Your task to perform on an android device: Look up the best rated coffee maker on Lowe's. Image 0: 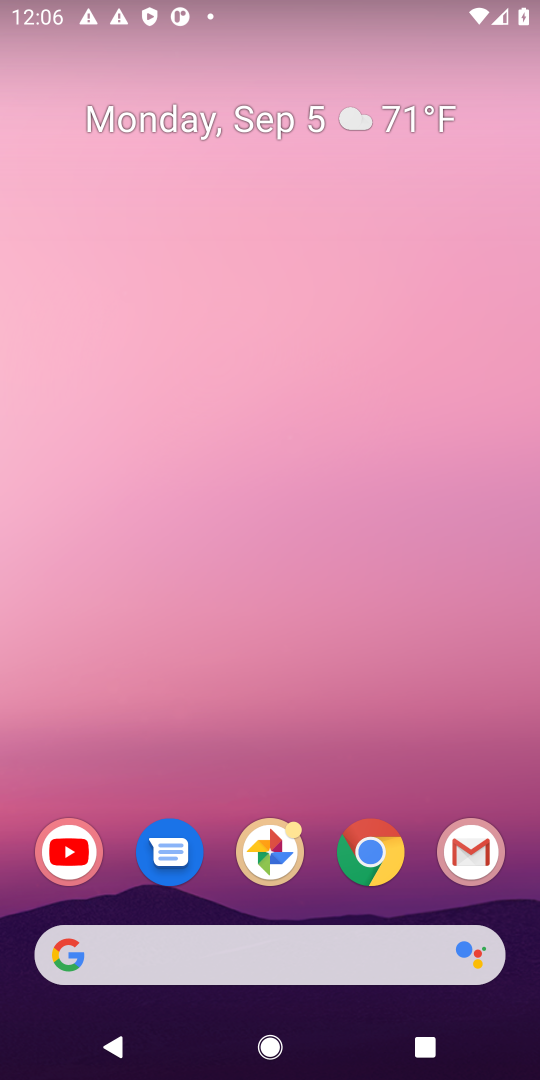
Step 0: click (369, 857)
Your task to perform on an android device: Look up the best rated coffee maker on Lowe's. Image 1: 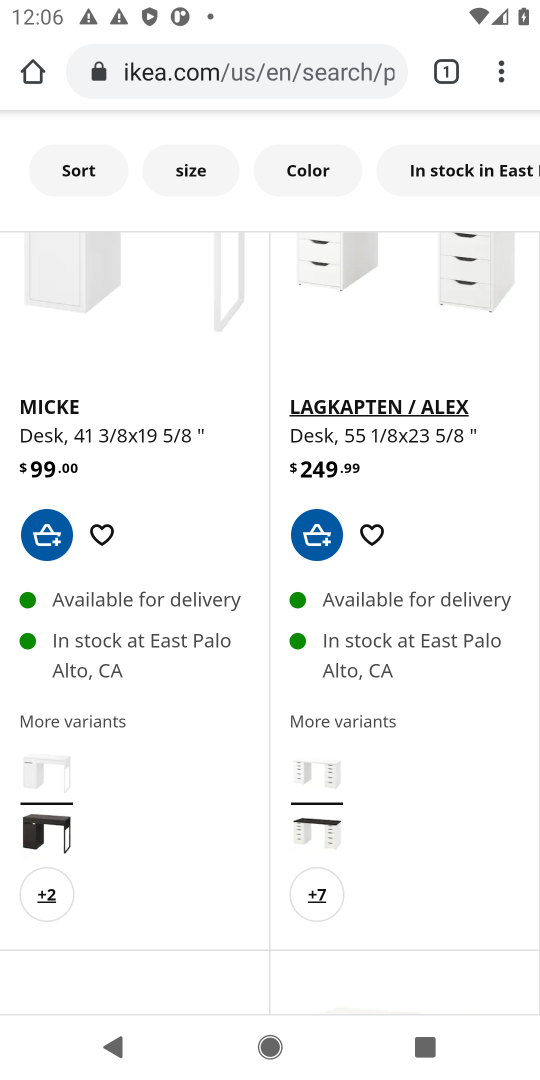
Step 1: click (322, 49)
Your task to perform on an android device: Look up the best rated coffee maker on Lowe's. Image 2: 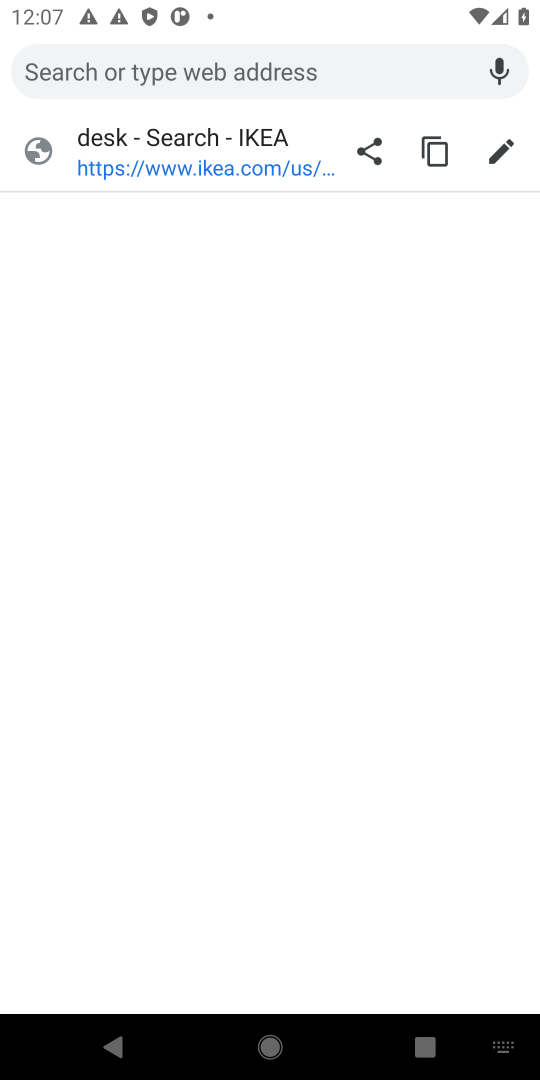
Step 2: type "Lowe's"
Your task to perform on an android device: Look up the best rated coffee maker on Lowe's. Image 3: 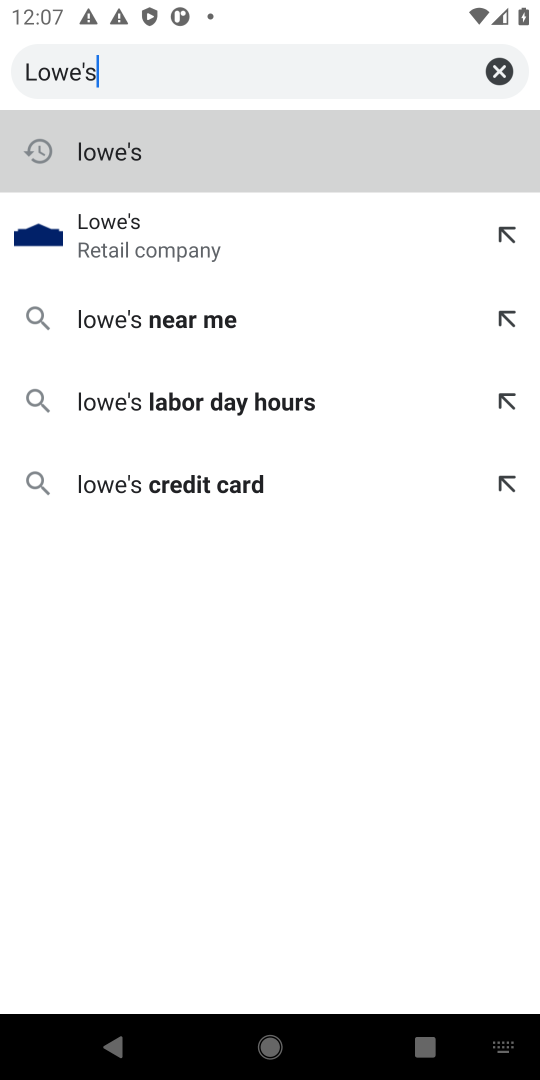
Step 3: click (105, 228)
Your task to perform on an android device: Look up the best rated coffee maker on Lowe's. Image 4: 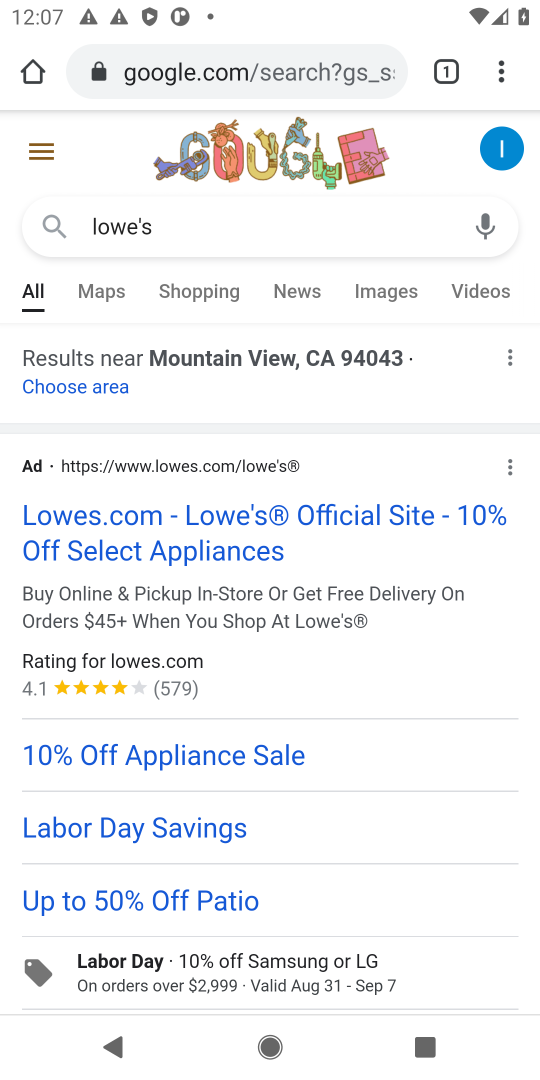
Step 4: click (239, 527)
Your task to perform on an android device: Look up the best rated coffee maker on Lowe's. Image 5: 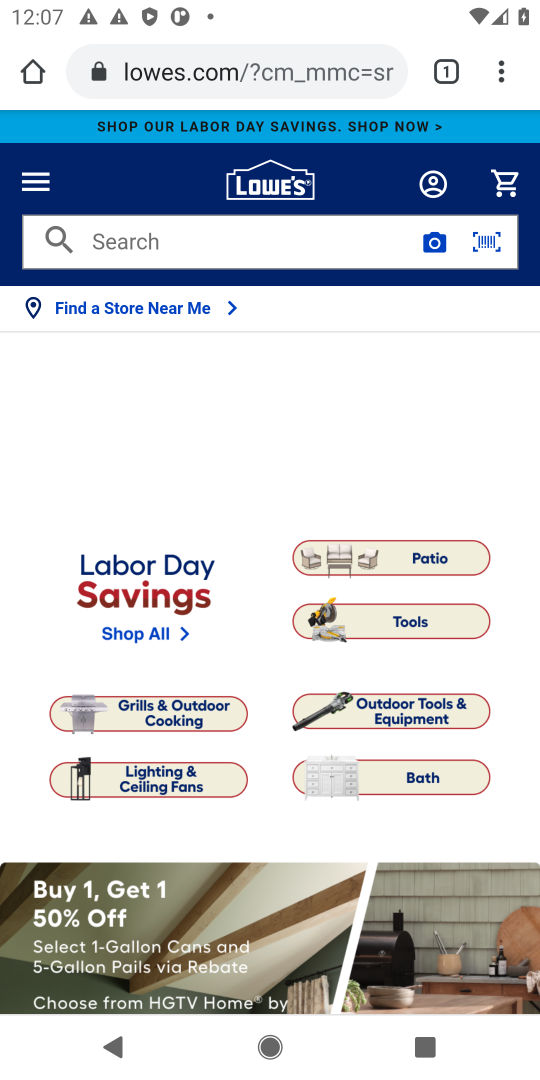
Step 5: click (145, 234)
Your task to perform on an android device: Look up the best rated coffee maker on Lowe's. Image 6: 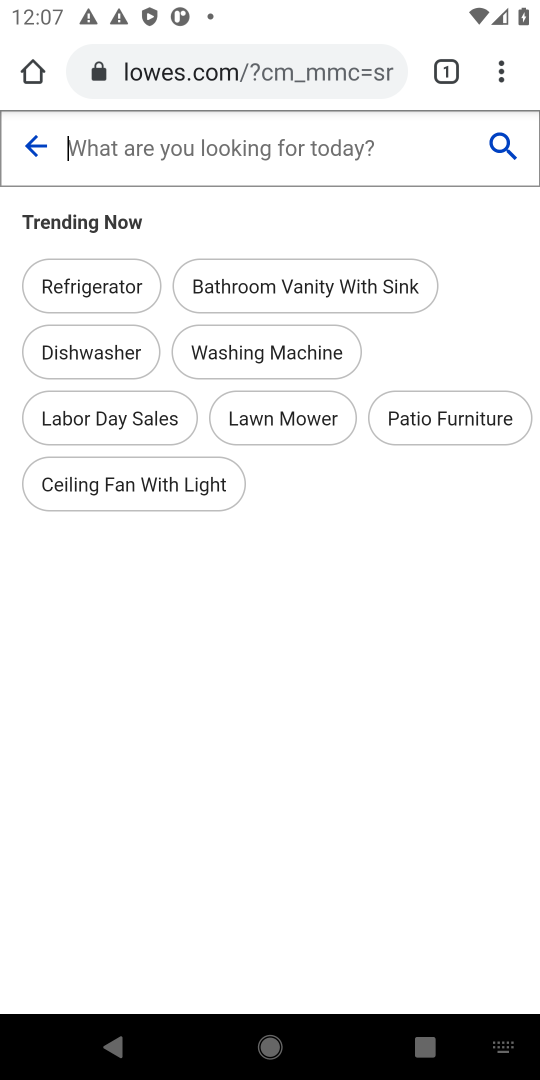
Step 6: click (160, 147)
Your task to perform on an android device: Look up the best rated coffee maker on Lowe's. Image 7: 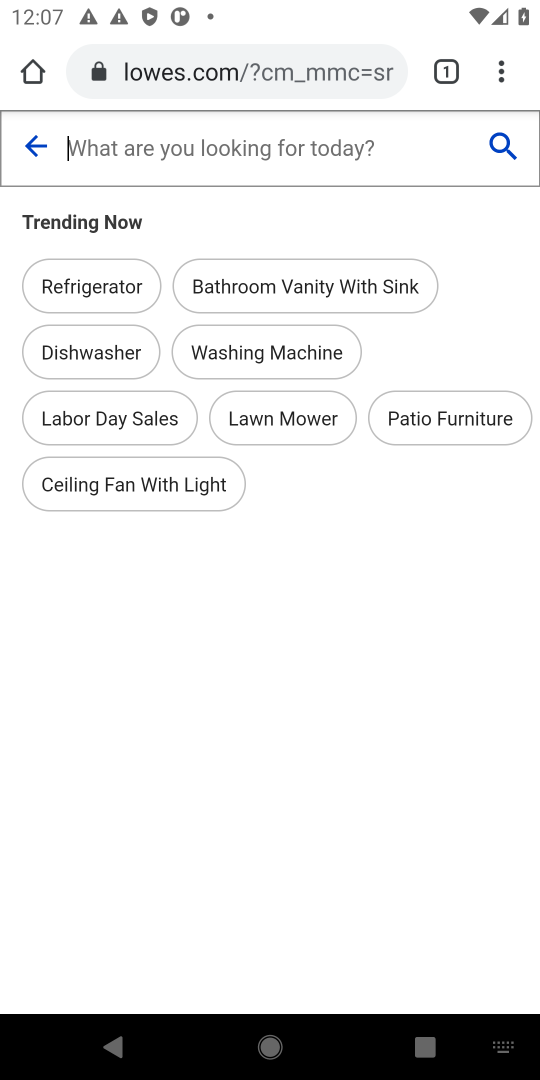
Step 7: type "coffee maker"
Your task to perform on an android device: Look up the best rated coffee maker on Lowe's. Image 8: 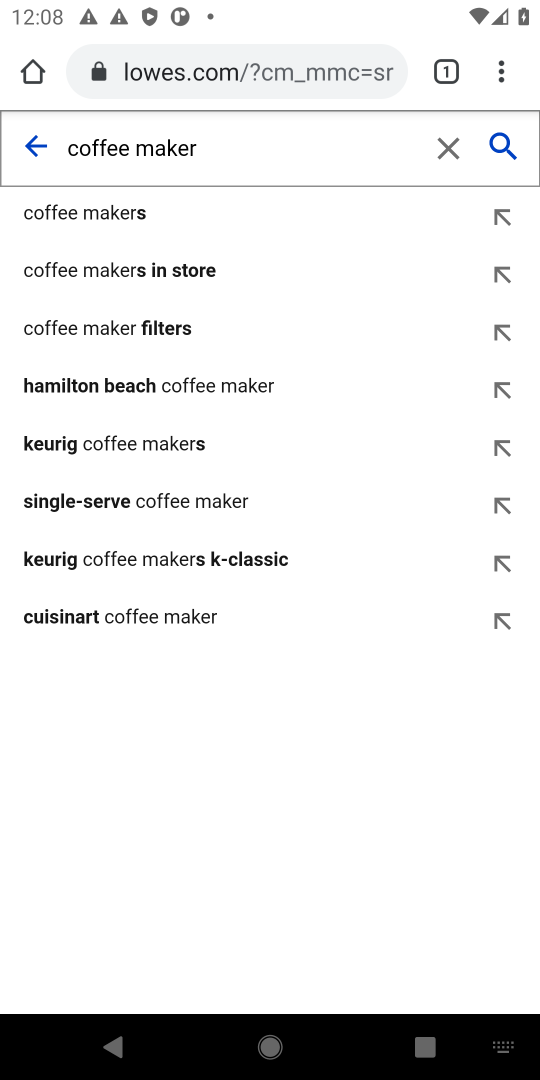
Step 8: click (73, 213)
Your task to perform on an android device: Look up the best rated coffee maker on Lowe's. Image 9: 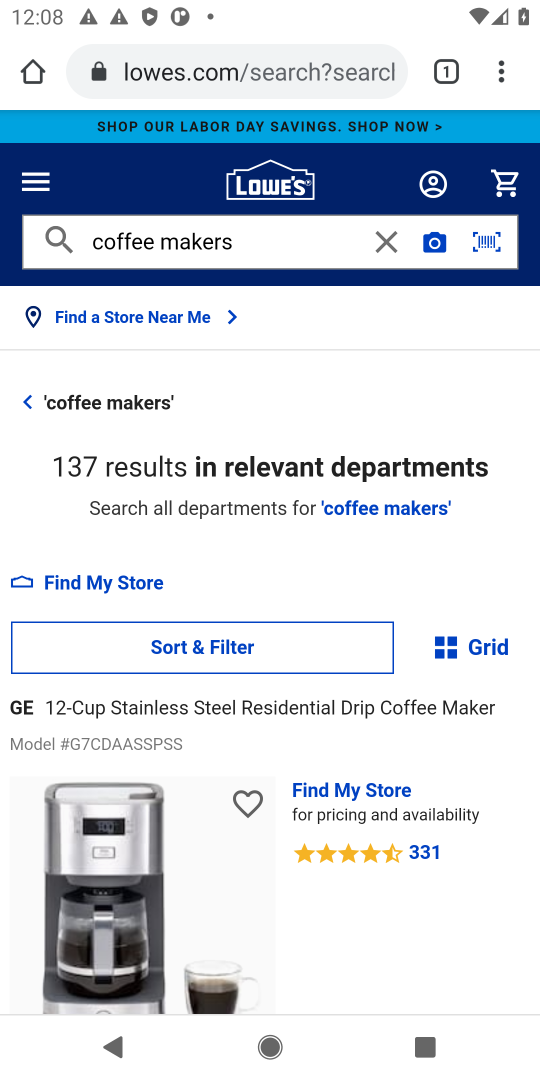
Step 9: click (192, 648)
Your task to perform on an android device: Look up the best rated coffee maker on Lowe's. Image 10: 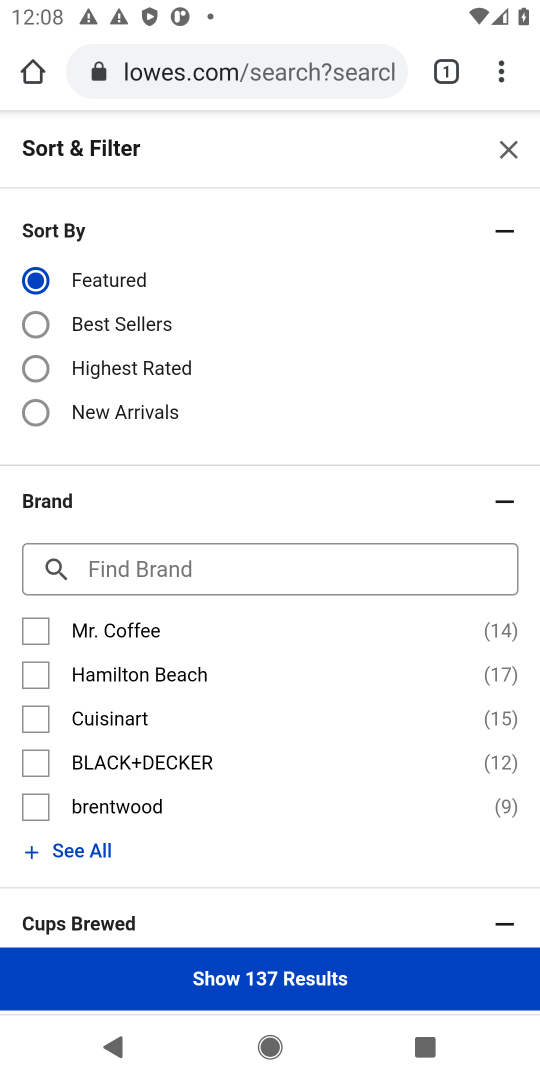
Step 10: click (32, 366)
Your task to perform on an android device: Look up the best rated coffee maker on Lowe's. Image 11: 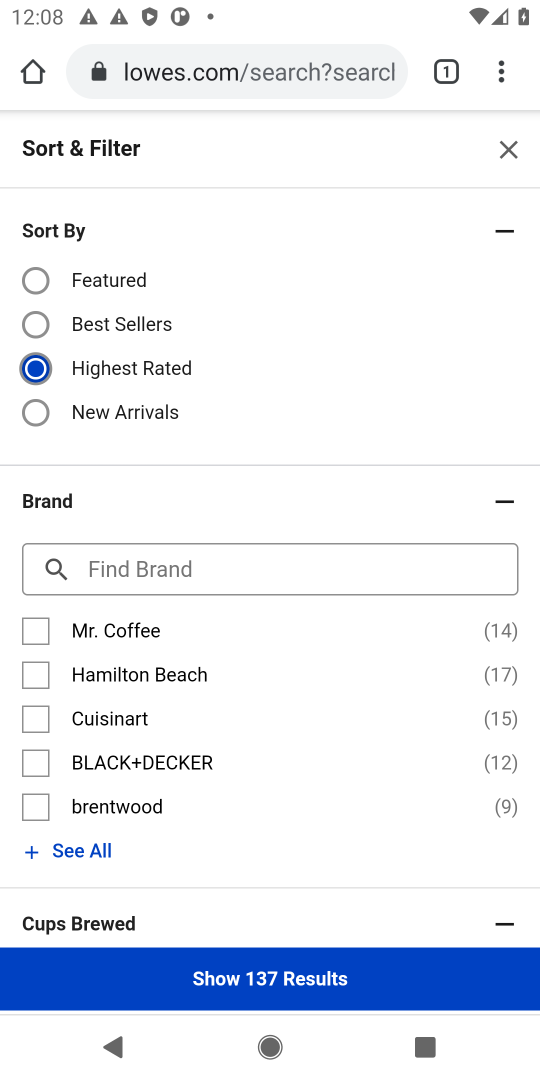
Step 11: click (268, 980)
Your task to perform on an android device: Look up the best rated coffee maker on Lowe's. Image 12: 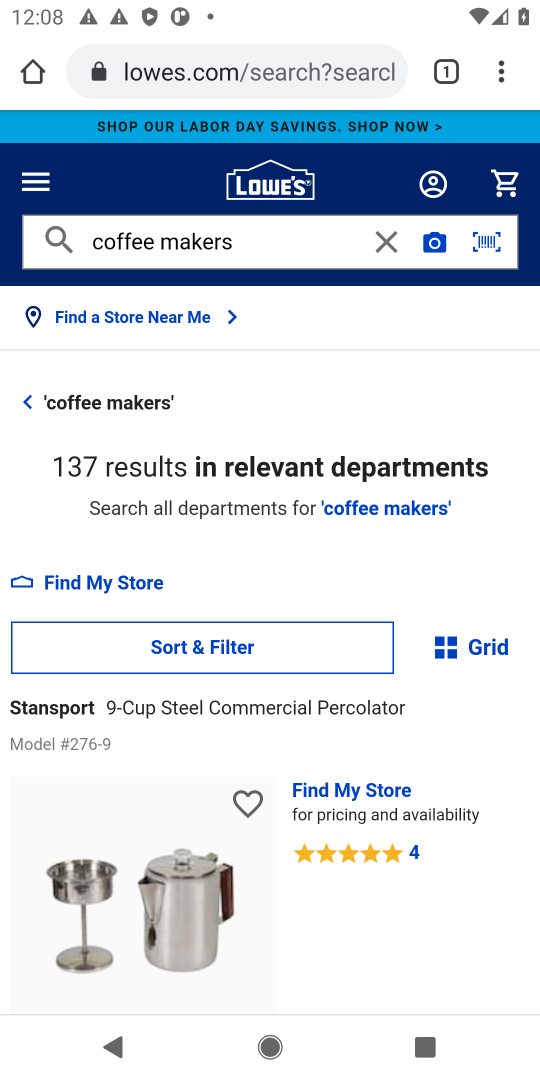
Step 12: task complete